Your task to perform on an android device: Do I have any events this weekend? Image 0: 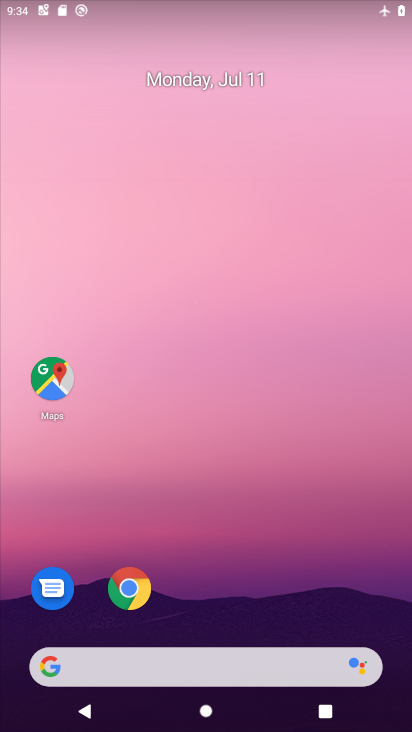
Step 0: drag from (182, 609) to (234, 114)
Your task to perform on an android device: Do I have any events this weekend? Image 1: 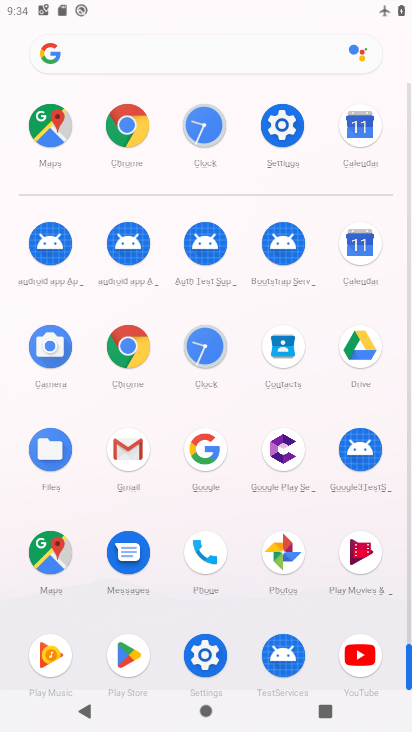
Step 1: click (362, 241)
Your task to perform on an android device: Do I have any events this weekend? Image 2: 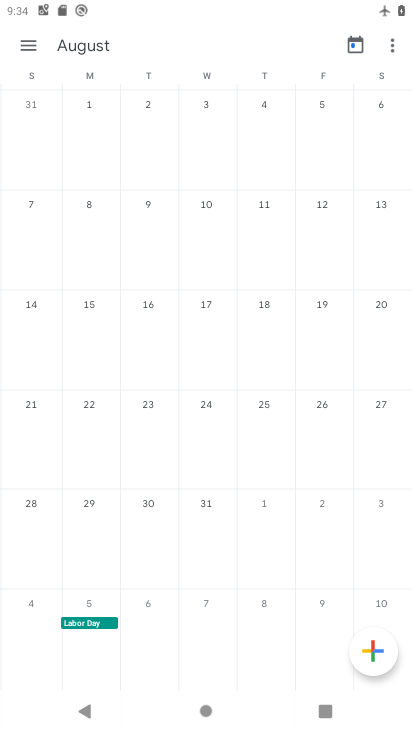
Step 2: click (35, 45)
Your task to perform on an android device: Do I have any events this weekend? Image 3: 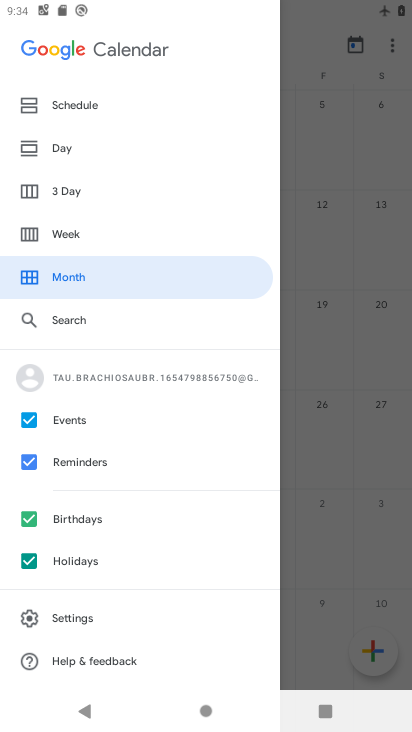
Step 3: click (79, 279)
Your task to perform on an android device: Do I have any events this weekend? Image 4: 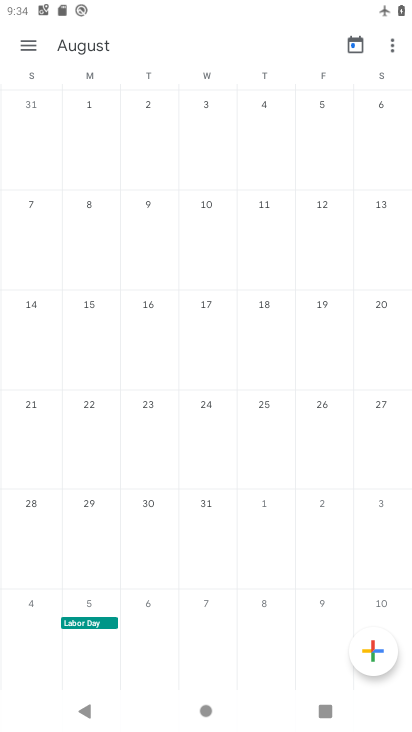
Step 4: drag from (18, 347) to (315, 390)
Your task to perform on an android device: Do I have any events this weekend? Image 5: 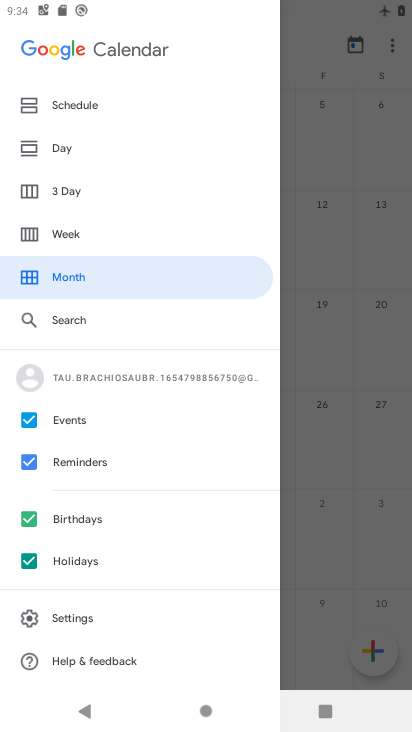
Step 5: click (286, 327)
Your task to perform on an android device: Do I have any events this weekend? Image 6: 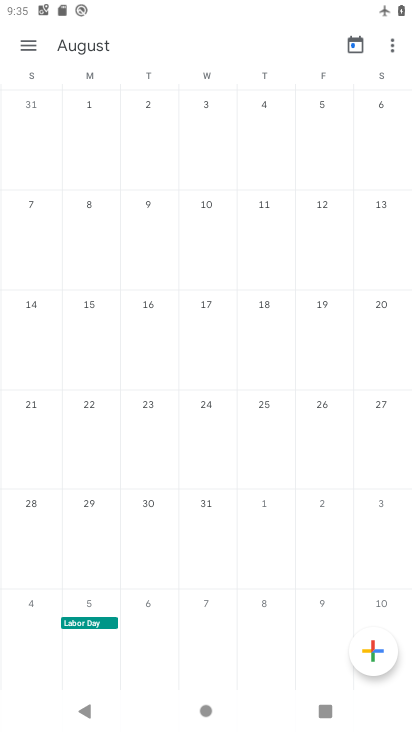
Step 6: drag from (24, 133) to (389, 167)
Your task to perform on an android device: Do I have any events this weekend? Image 7: 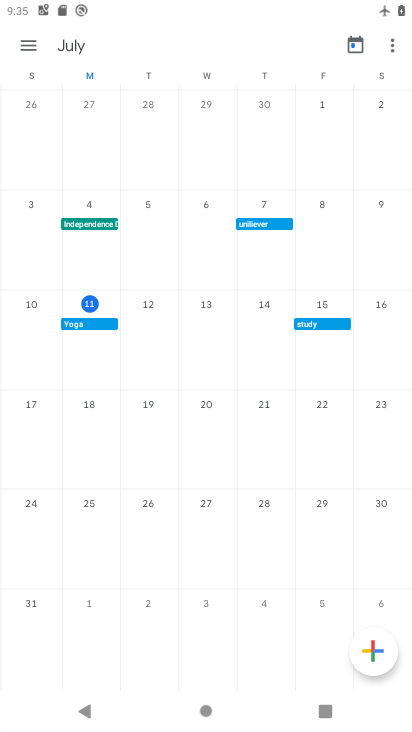
Step 7: click (22, 42)
Your task to perform on an android device: Do I have any events this weekend? Image 8: 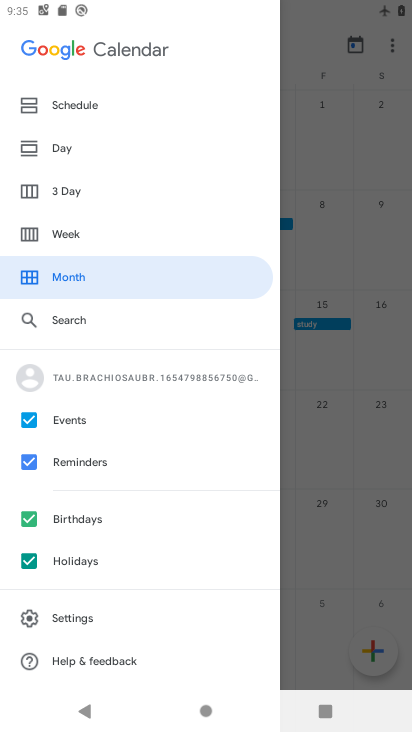
Step 8: click (71, 227)
Your task to perform on an android device: Do I have any events this weekend? Image 9: 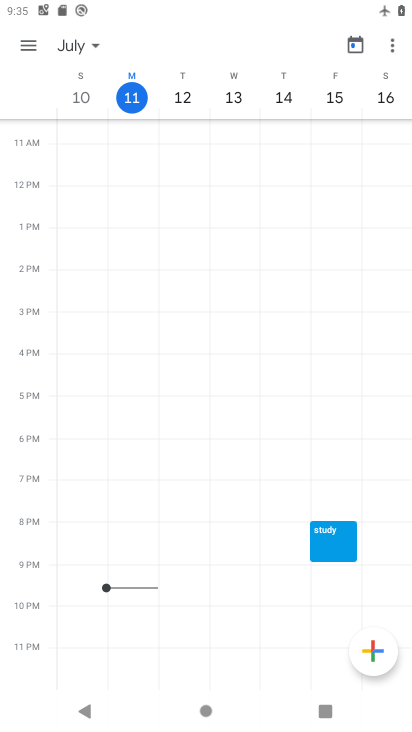
Step 9: task complete